Your task to perform on an android device: add a contact in the contacts app Image 0: 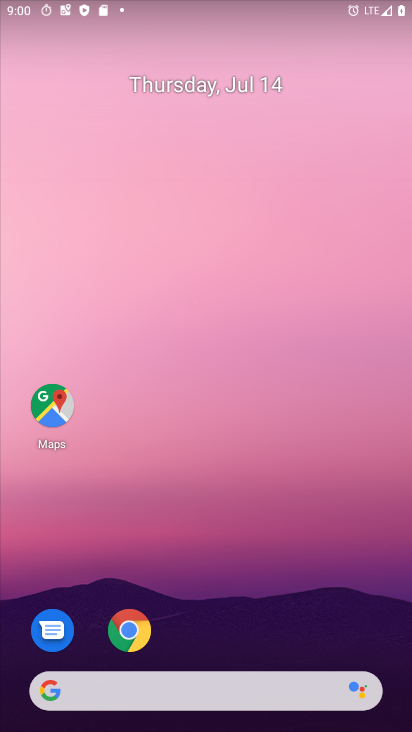
Step 0: drag from (210, 729) to (192, 45)
Your task to perform on an android device: add a contact in the contacts app Image 1: 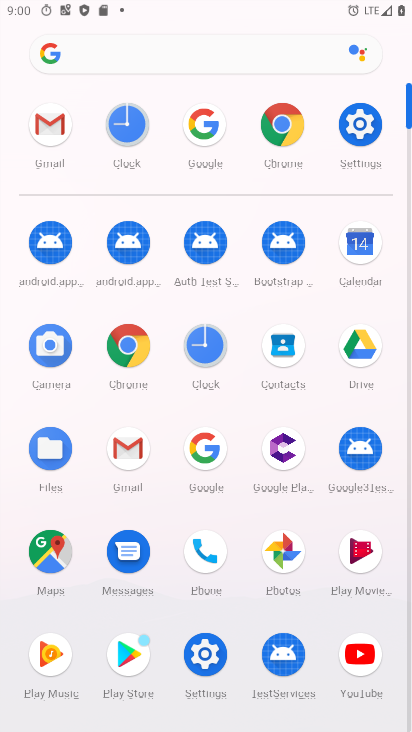
Step 1: click (289, 344)
Your task to perform on an android device: add a contact in the contacts app Image 2: 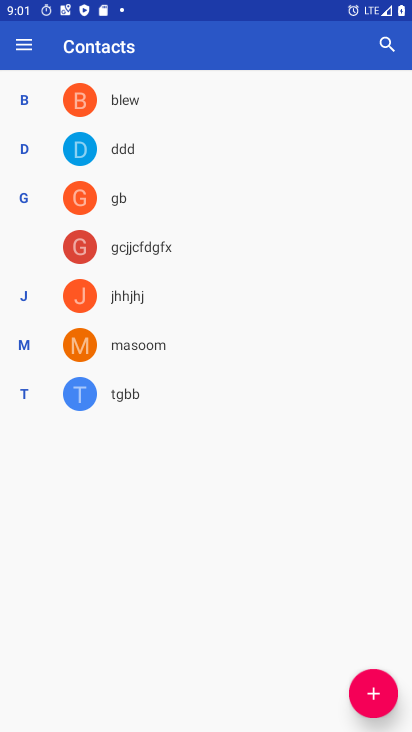
Step 2: click (378, 697)
Your task to perform on an android device: add a contact in the contacts app Image 3: 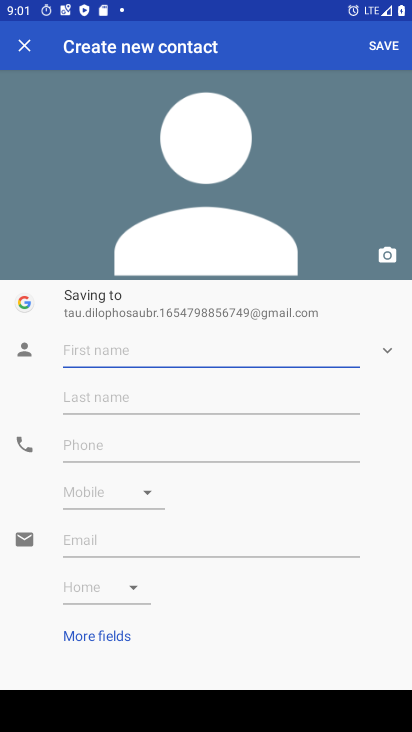
Step 3: type "raja raja chola"
Your task to perform on an android device: add a contact in the contacts app Image 4: 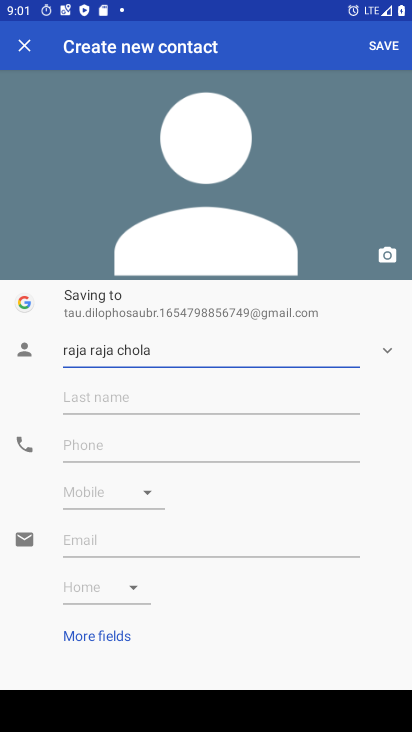
Step 4: click (380, 52)
Your task to perform on an android device: add a contact in the contacts app Image 5: 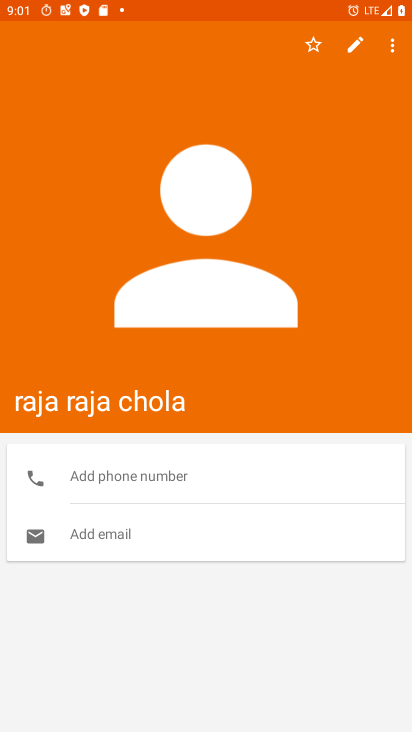
Step 5: task complete